Your task to perform on an android device: Go to Maps Image 0: 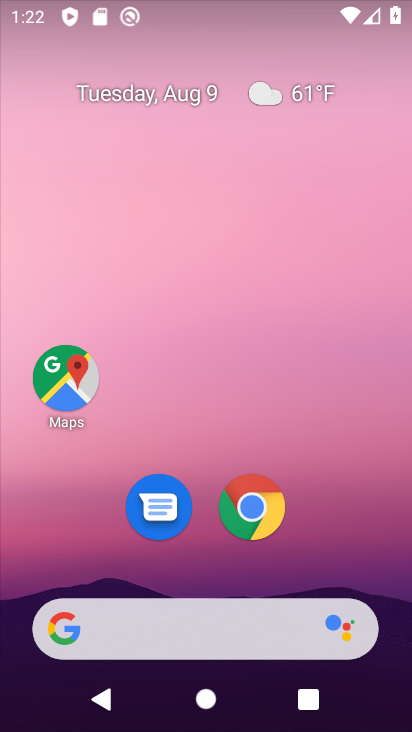
Step 0: click (65, 370)
Your task to perform on an android device: Go to Maps Image 1: 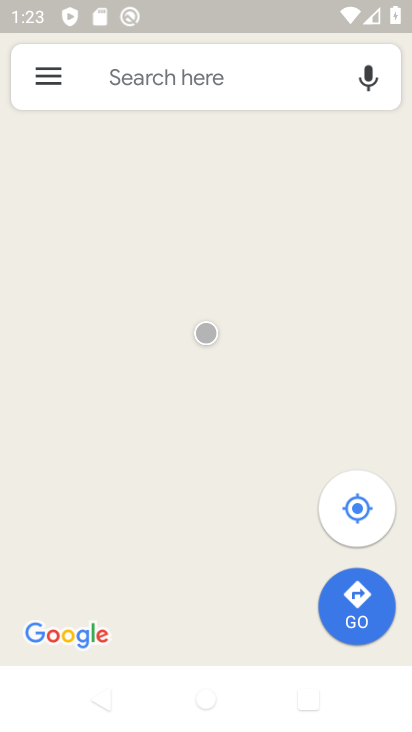
Step 1: task complete